Your task to perform on an android device: Go to Google Image 0: 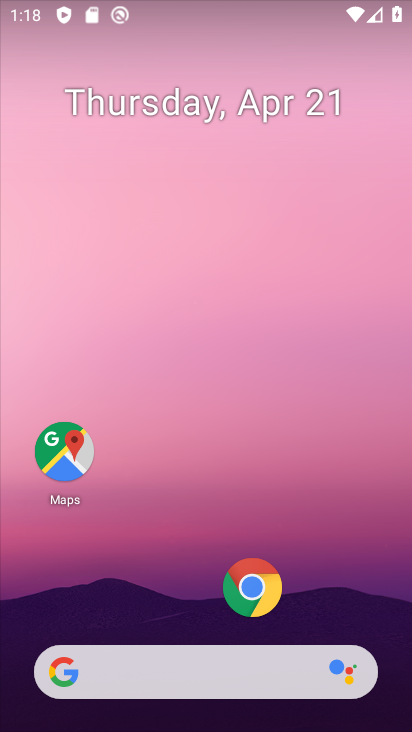
Step 0: drag from (310, 619) to (247, 148)
Your task to perform on an android device: Go to Google Image 1: 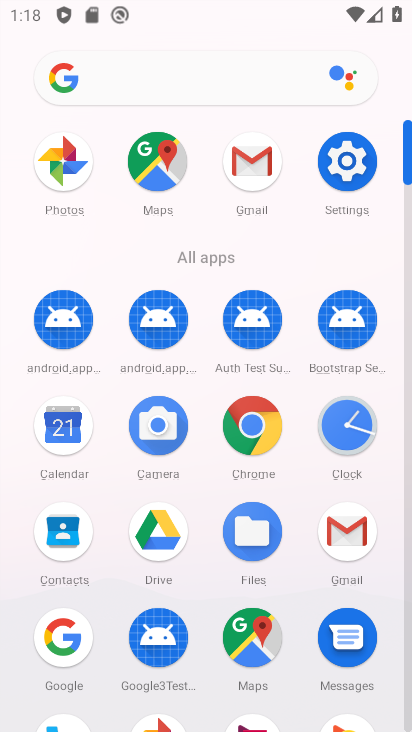
Step 1: click (267, 433)
Your task to perform on an android device: Go to Google Image 2: 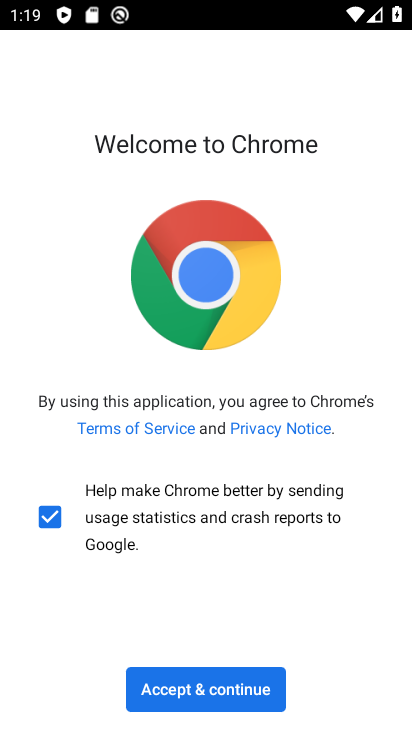
Step 2: click (187, 689)
Your task to perform on an android device: Go to Google Image 3: 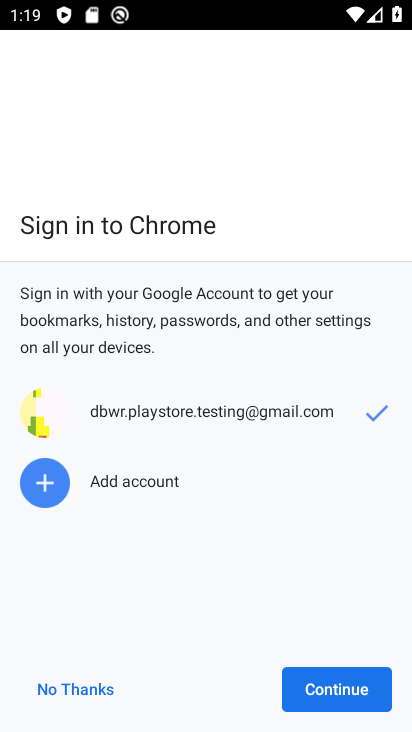
Step 3: click (82, 692)
Your task to perform on an android device: Go to Google Image 4: 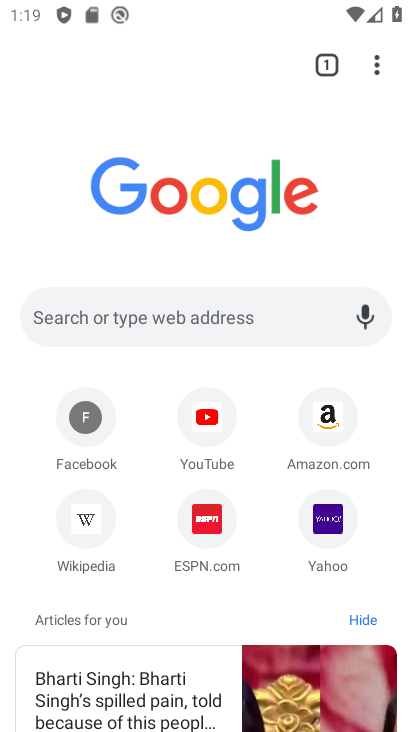
Step 4: task complete